Your task to perform on an android device: Open Maps and search for coffee Image 0: 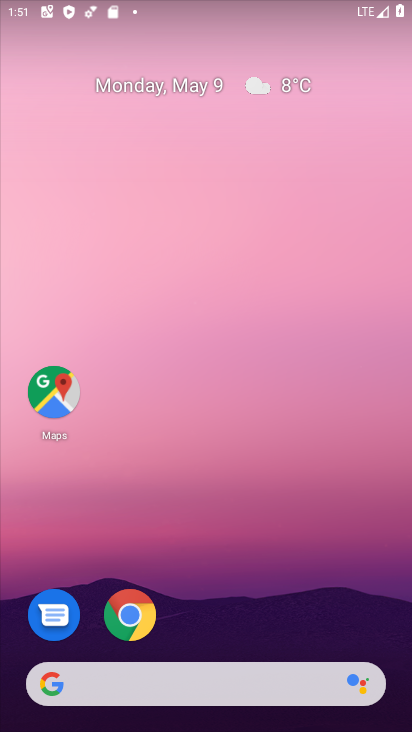
Step 0: click (51, 394)
Your task to perform on an android device: Open Maps and search for coffee Image 1: 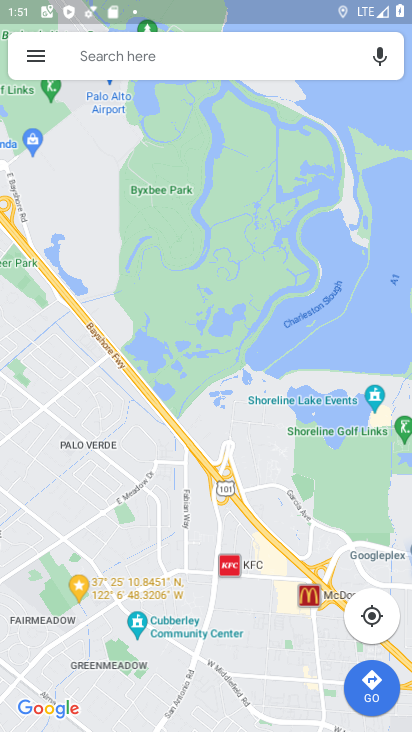
Step 1: click (136, 63)
Your task to perform on an android device: Open Maps and search for coffee Image 2: 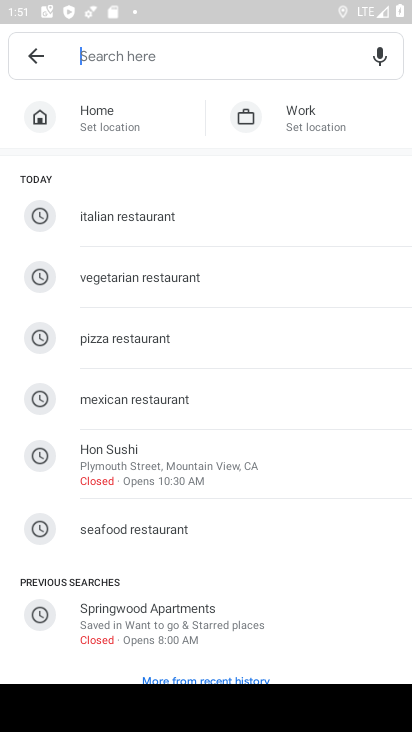
Step 2: type "coffee"
Your task to perform on an android device: Open Maps and search for coffee Image 3: 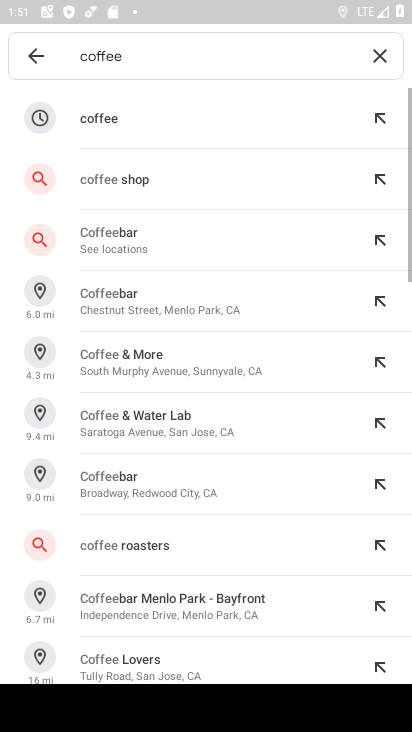
Step 3: click (104, 108)
Your task to perform on an android device: Open Maps and search for coffee Image 4: 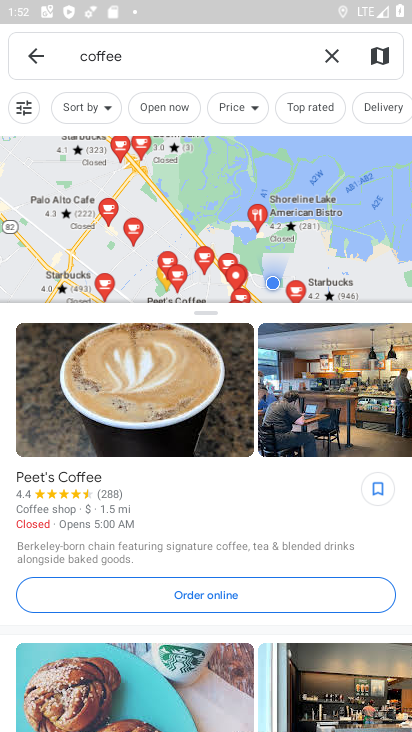
Step 4: task complete